Your task to perform on an android device: Go to sound settings Image 0: 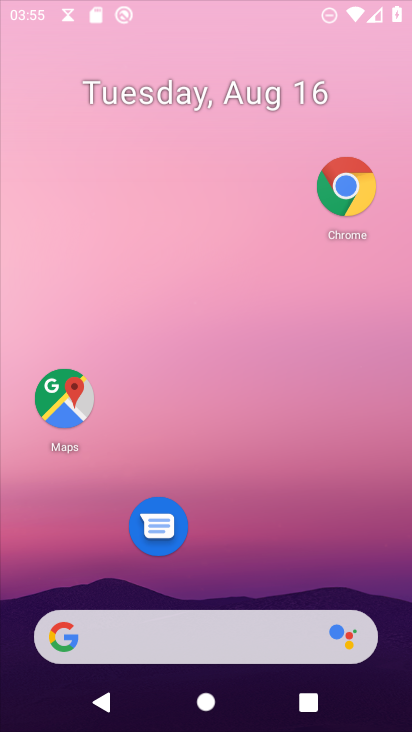
Step 0: press home button
Your task to perform on an android device: Go to sound settings Image 1: 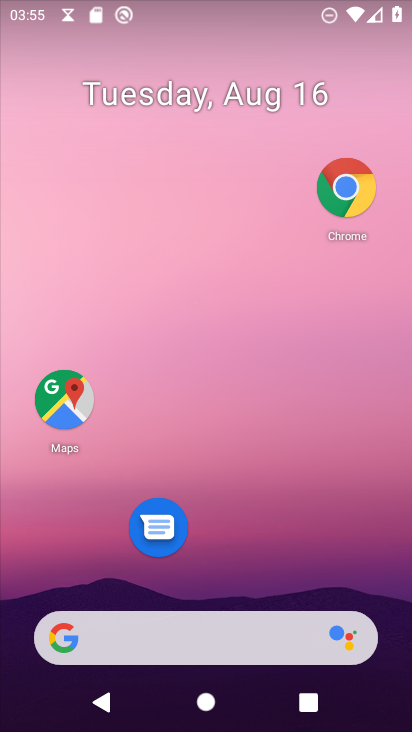
Step 1: drag from (232, 585) to (211, 58)
Your task to perform on an android device: Go to sound settings Image 2: 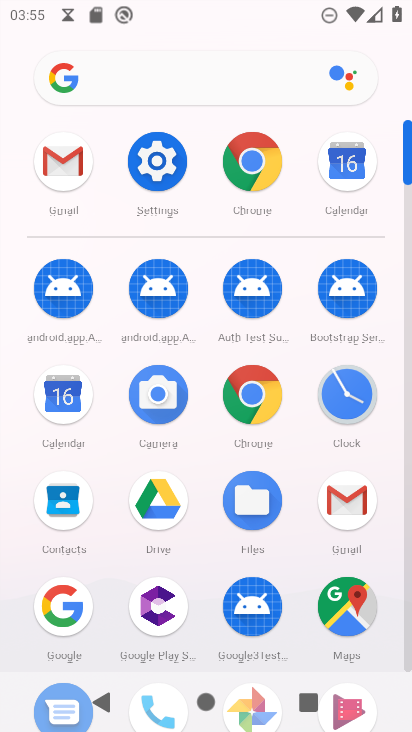
Step 2: drag from (203, 621) to (221, 97)
Your task to perform on an android device: Go to sound settings Image 3: 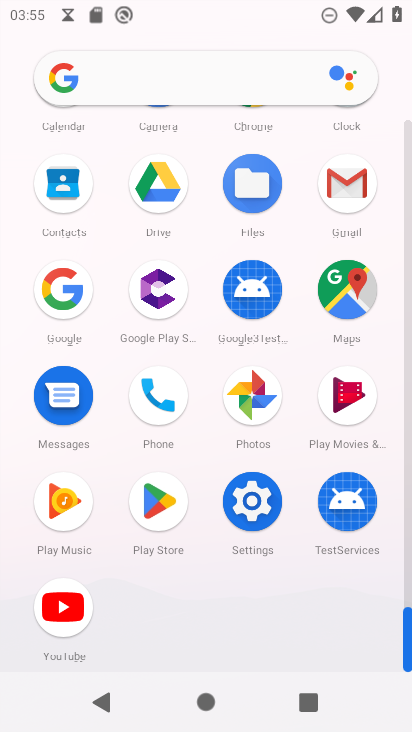
Step 3: click (252, 498)
Your task to perform on an android device: Go to sound settings Image 4: 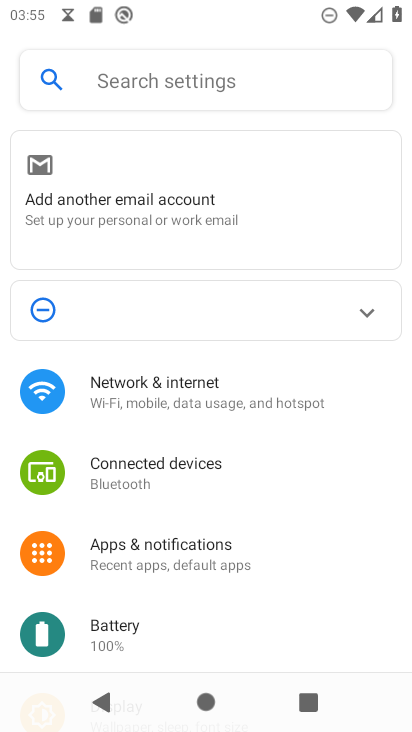
Step 4: drag from (184, 646) to (231, 98)
Your task to perform on an android device: Go to sound settings Image 5: 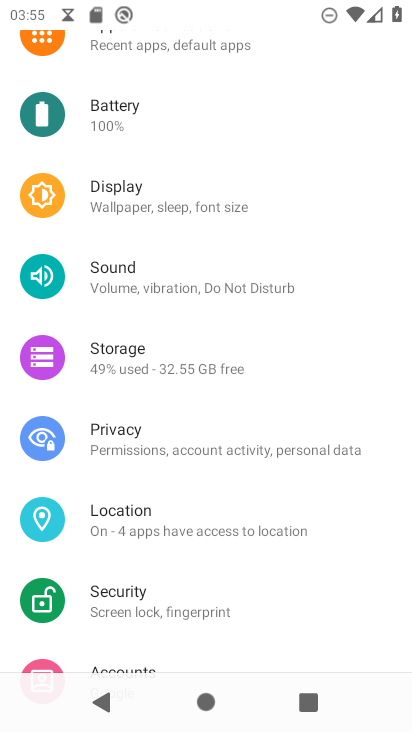
Step 5: click (156, 269)
Your task to perform on an android device: Go to sound settings Image 6: 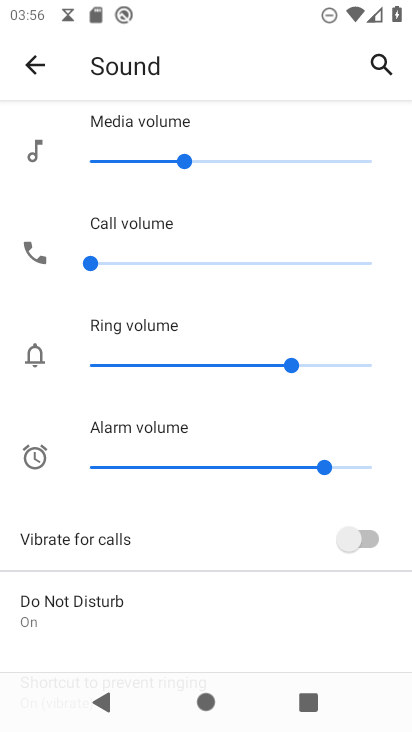
Step 6: task complete